Your task to perform on an android device: Search for Mexican restaurants on Maps Image 0: 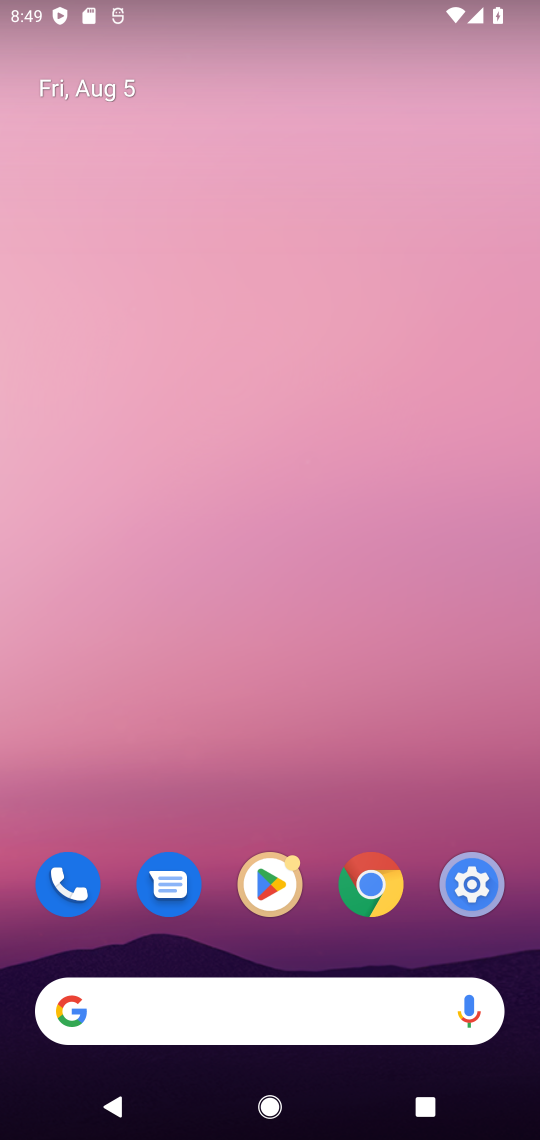
Step 0: drag from (289, 723) to (294, 245)
Your task to perform on an android device: Search for Mexican restaurants on Maps Image 1: 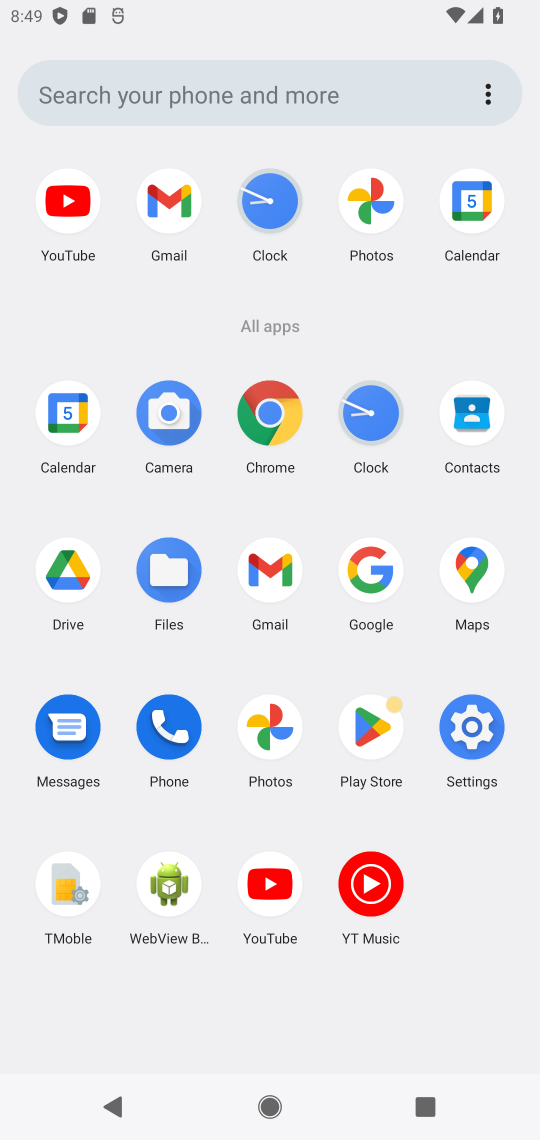
Step 1: click (465, 571)
Your task to perform on an android device: Search for Mexican restaurants on Maps Image 2: 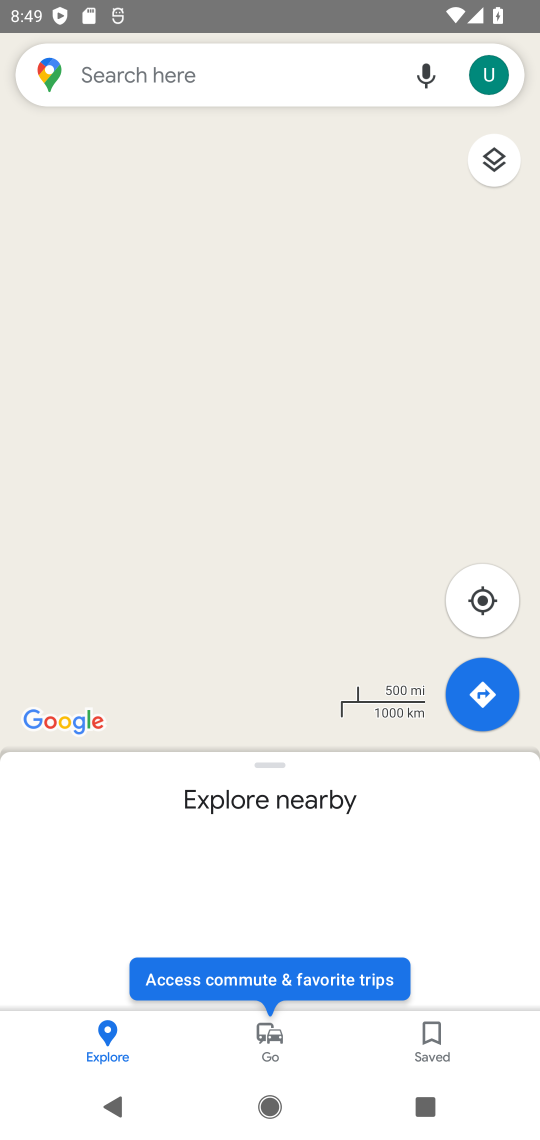
Step 2: click (219, 67)
Your task to perform on an android device: Search for Mexican restaurants on Maps Image 3: 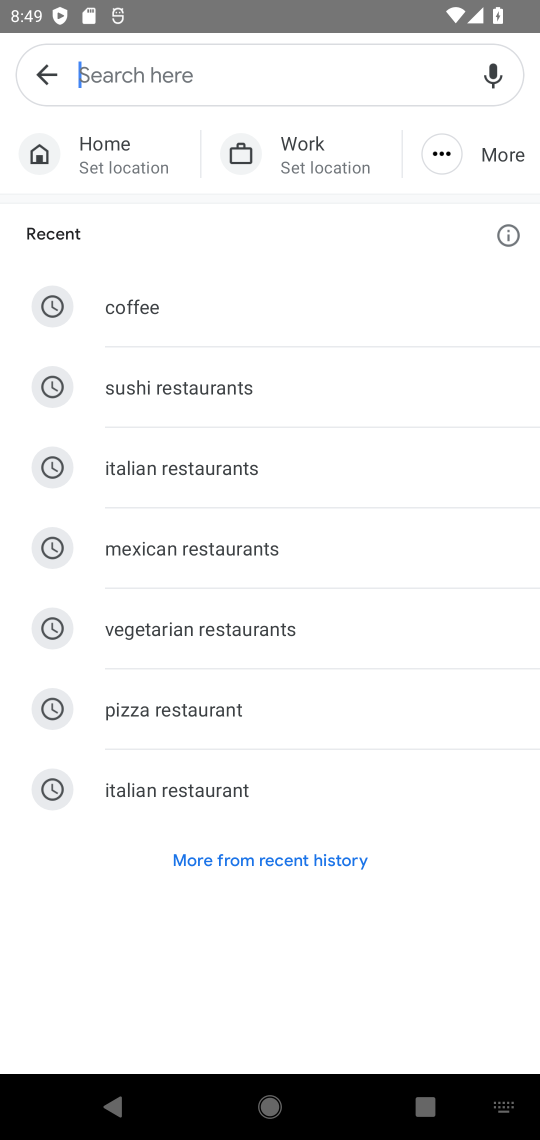
Step 3: type " Mexican restaurants"
Your task to perform on an android device: Search for Mexican restaurants on Maps Image 4: 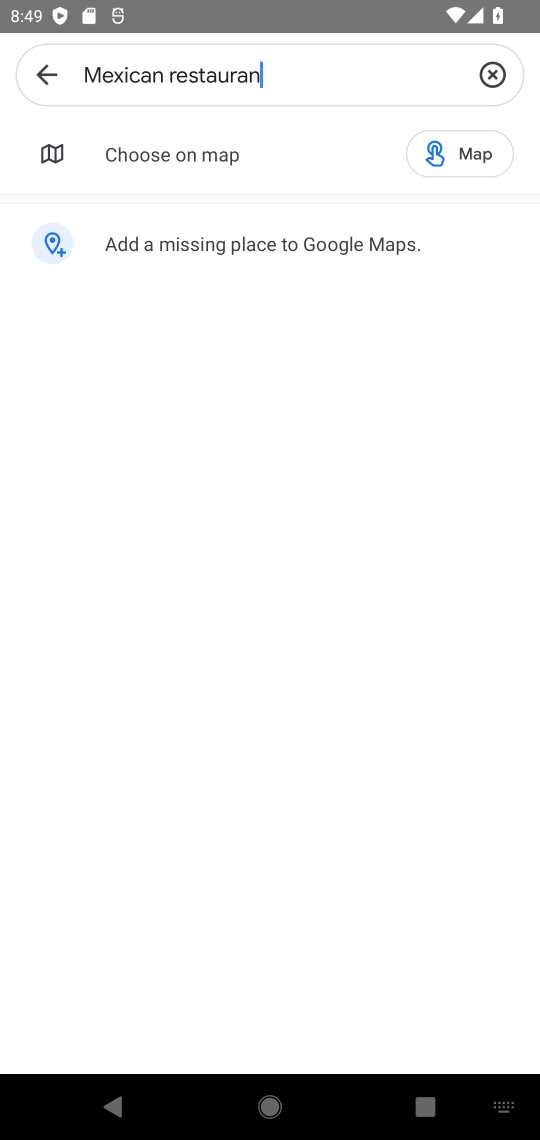
Step 4: press enter
Your task to perform on an android device: Search for Mexican restaurants on Maps Image 5: 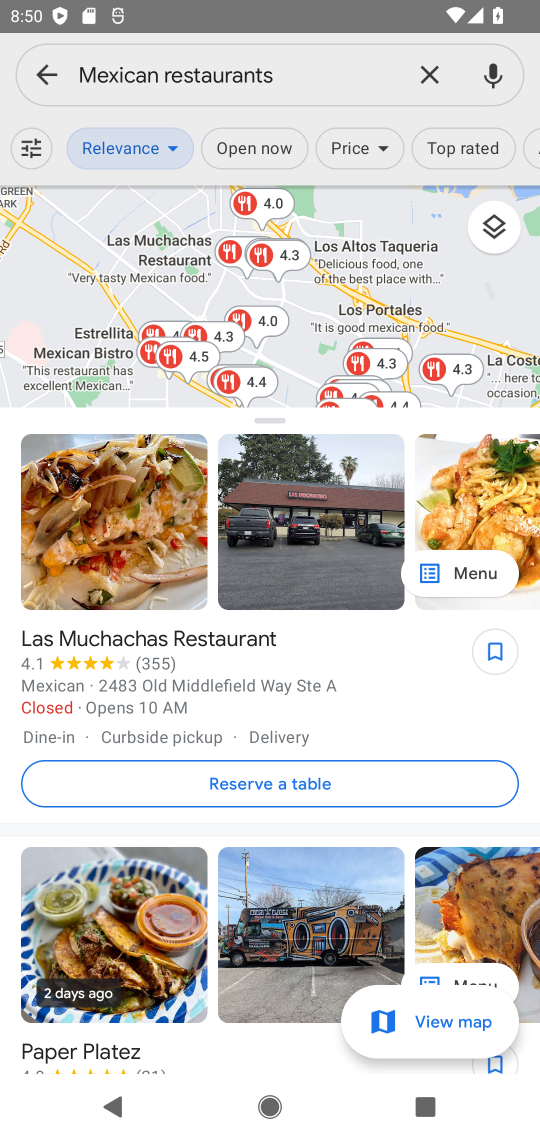
Step 5: task complete